Your task to perform on an android device: Go to eBay Image 0: 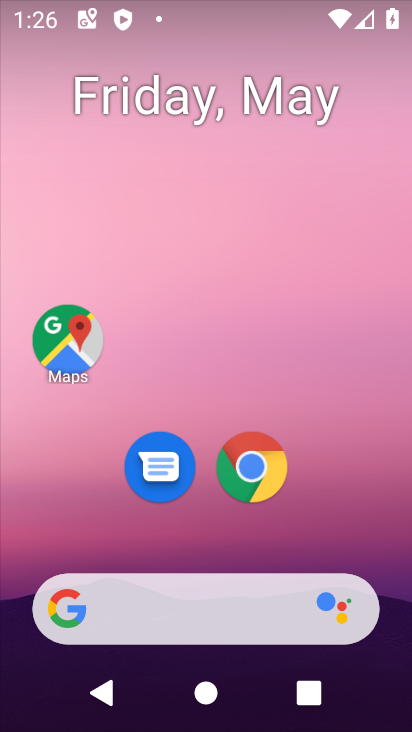
Step 0: drag from (388, 499) to (336, 77)
Your task to perform on an android device: Go to eBay Image 1: 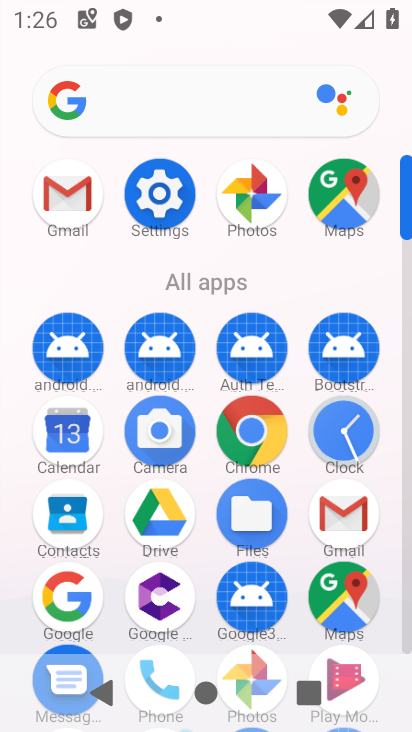
Step 1: click (262, 435)
Your task to perform on an android device: Go to eBay Image 2: 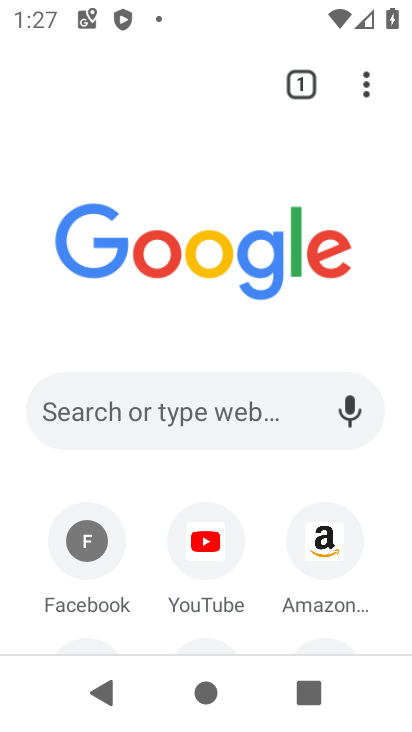
Step 2: drag from (364, 517) to (349, 245)
Your task to perform on an android device: Go to eBay Image 3: 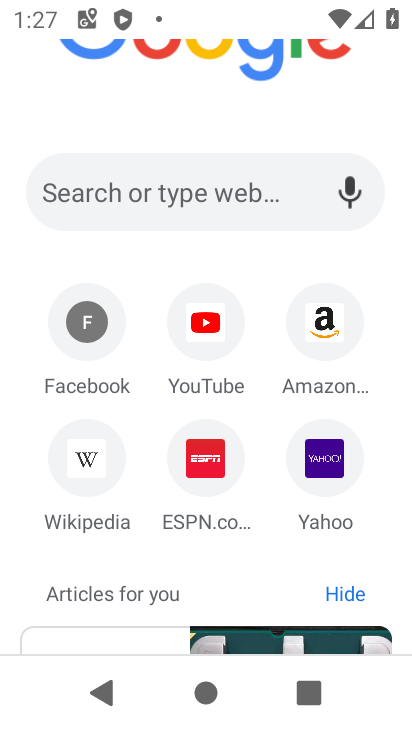
Step 3: click (220, 195)
Your task to perform on an android device: Go to eBay Image 4: 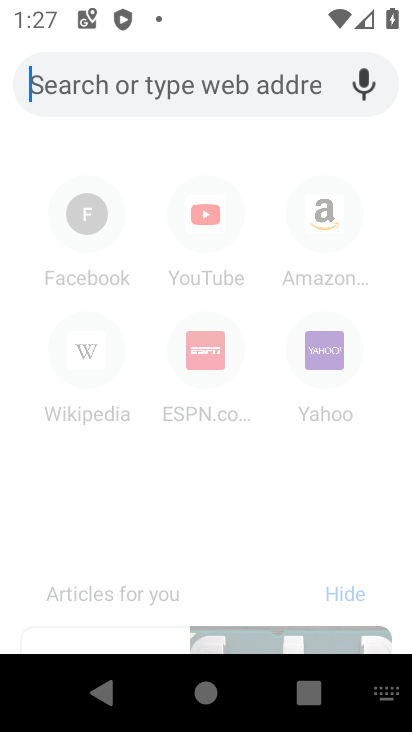
Step 4: type "ebay"
Your task to perform on an android device: Go to eBay Image 5: 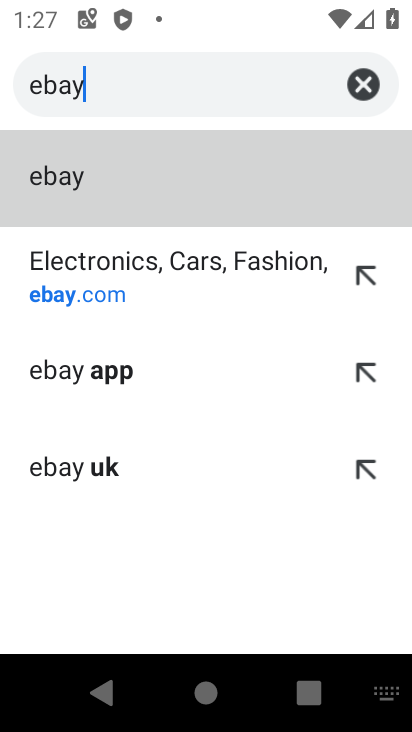
Step 5: click (102, 175)
Your task to perform on an android device: Go to eBay Image 6: 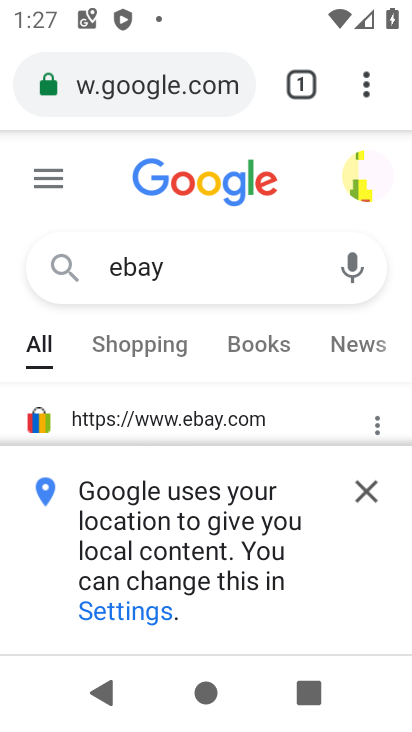
Step 6: click (355, 507)
Your task to perform on an android device: Go to eBay Image 7: 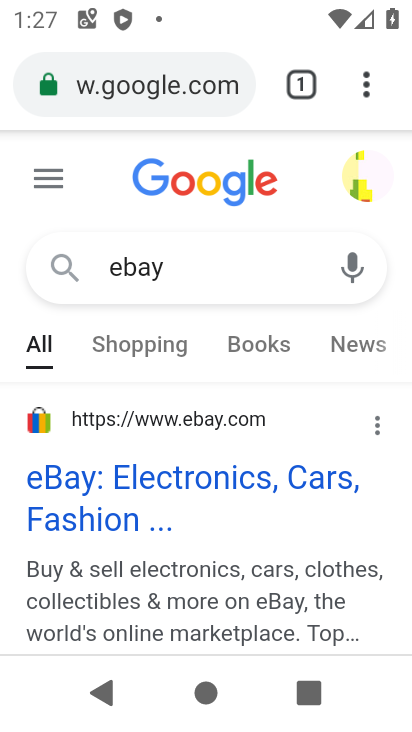
Step 7: click (197, 452)
Your task to perform on an android device: Go to eBay Image 8: 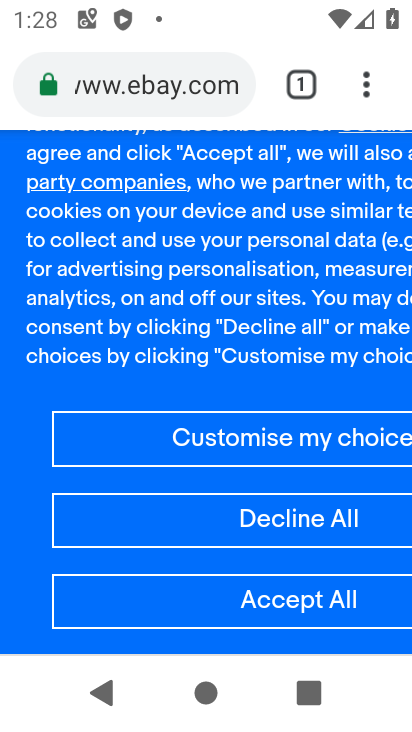
Step 8: task complete